Your task to perform on an android device: turn pop-ups on in chrome Image 0: 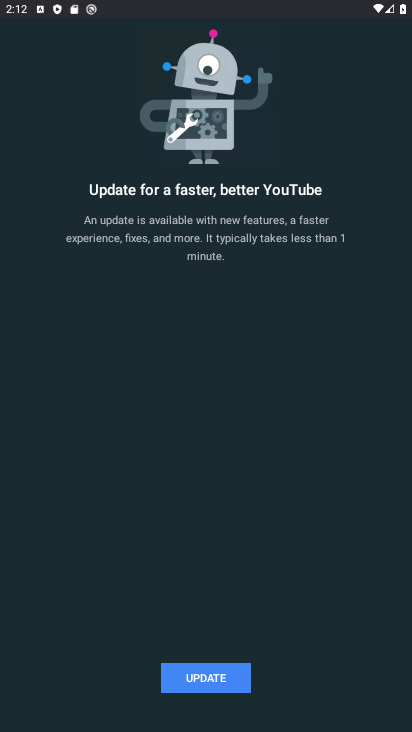
Step 0: press back button
Your task to perform on an android device: turn pop-ups on in chrome Image 1: 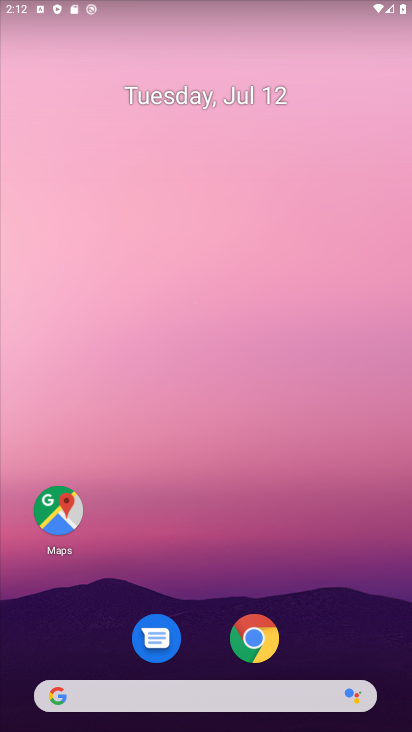
Step 1: drag from (202, 669) to (267, 79)
Your task to perform on an android device: turn pop-ups on in chrome Image 2: 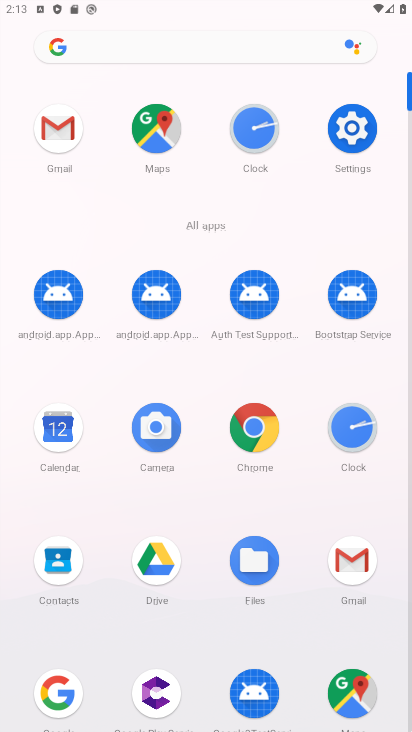
Step 2: click (259, 432)
Your task to perform on an android device: turn pop-ups on in chrome Image 3: 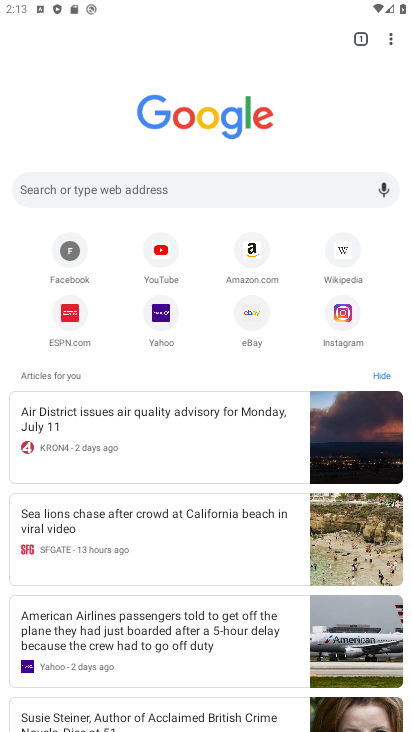
Step 3: drag from (398, 37) to (239, 332)
Your task to perform on an android device: turn pop-ups on in chrome Image 4: 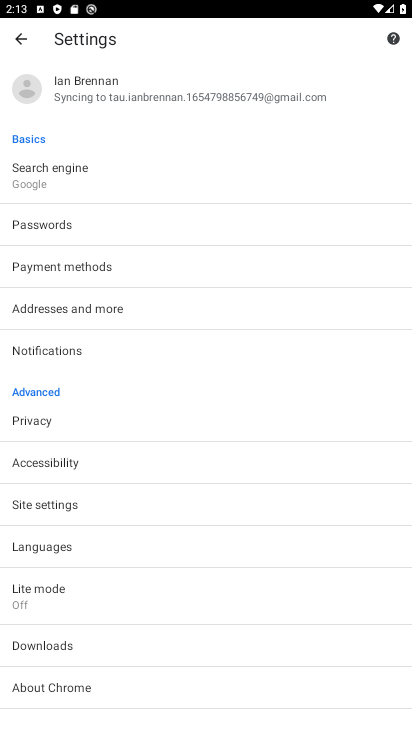
Step 4: click (30, 508)
Your task to perform on an android device: turn pop-ups on in chrome Image 5: 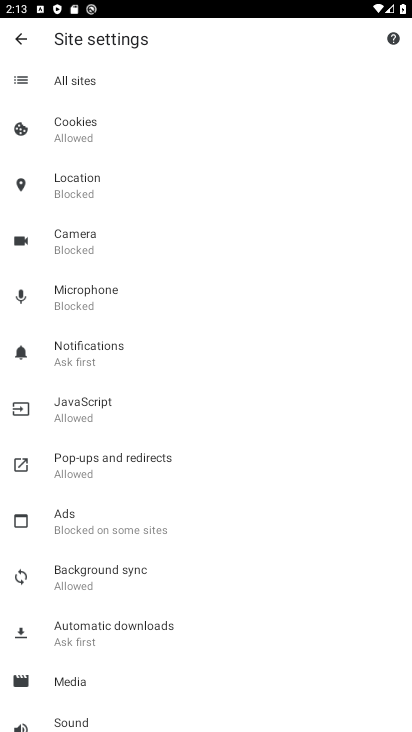
Step 5: click (119, 470)
Your task to perform on an android device: turn pop-ups on in chrome Image 6: 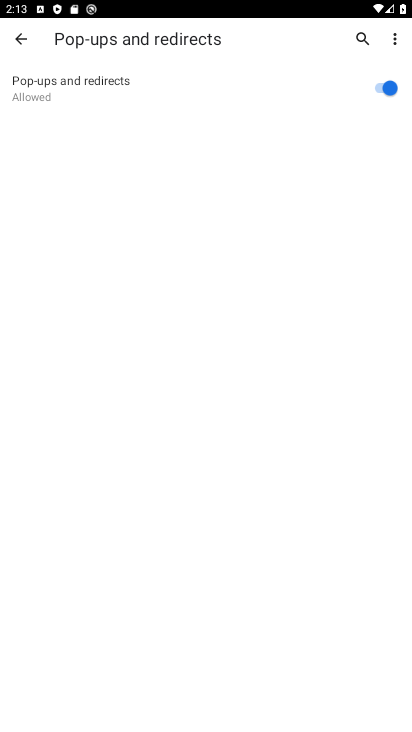
Step 6: click (384, 91)
Your task to perform on an android device: turn pop-ups on in chrome Image 7: 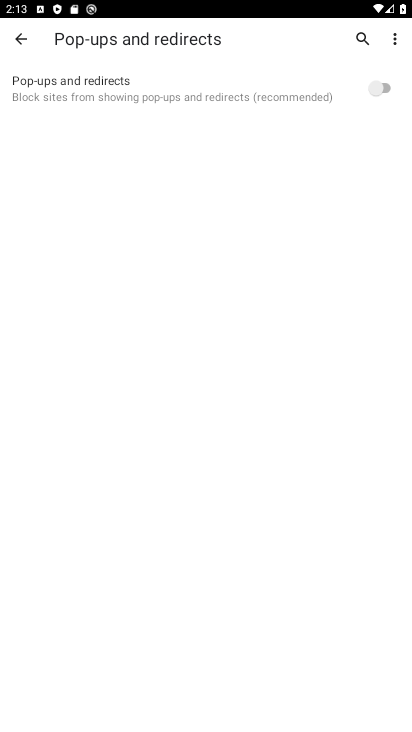
Step 7: click (384, 91)
Your task to perform on an android device: turn pop-ups on in chrome Image 8: 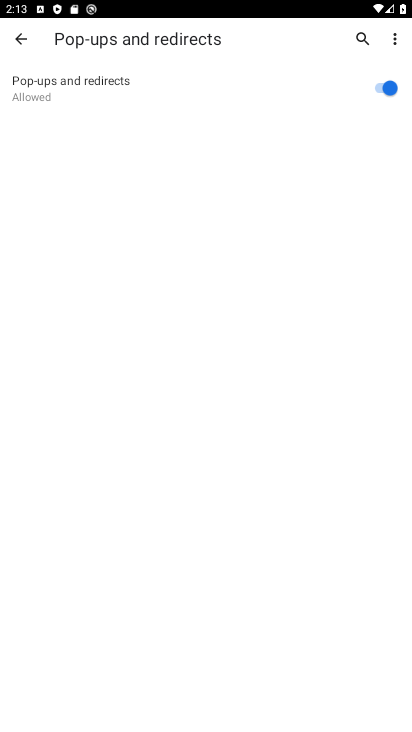
Step 8: task complete